Your task to perform on an android device: What is the recent news? Image 0: 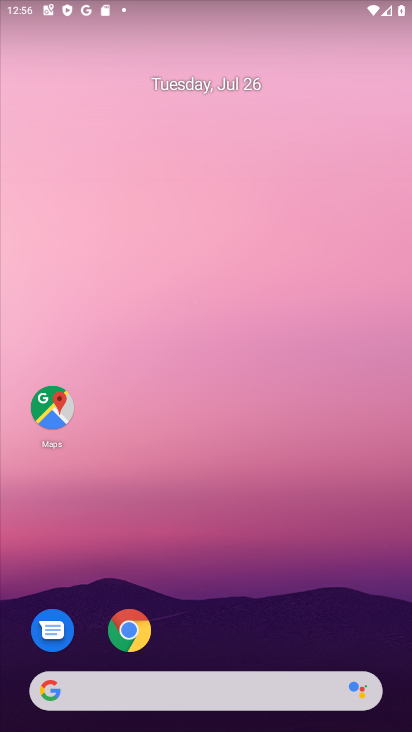
Step 0: click (202, 687)
Your task to perform on an android device: What is the recent news? Image 1: 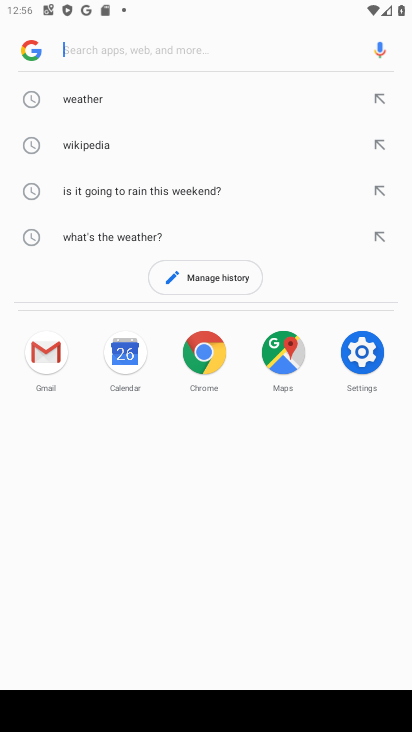
Step 1: type "recent news"
Your task to perform on an android device: What is the recent news? Image 2: 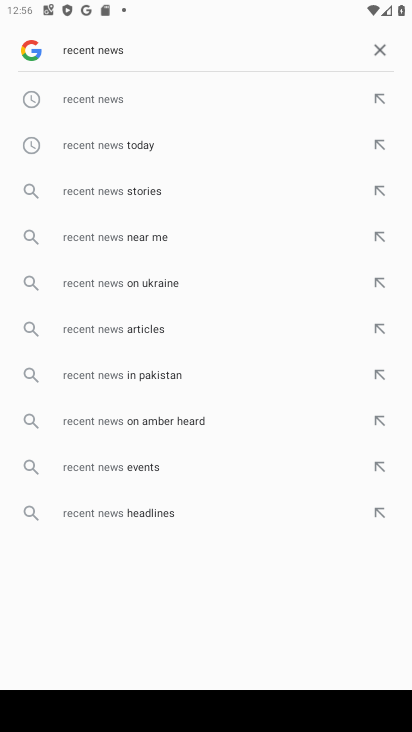
Step 2: click (112, 92)
Your task to perform on an android device: What is the recent news? Image 3: 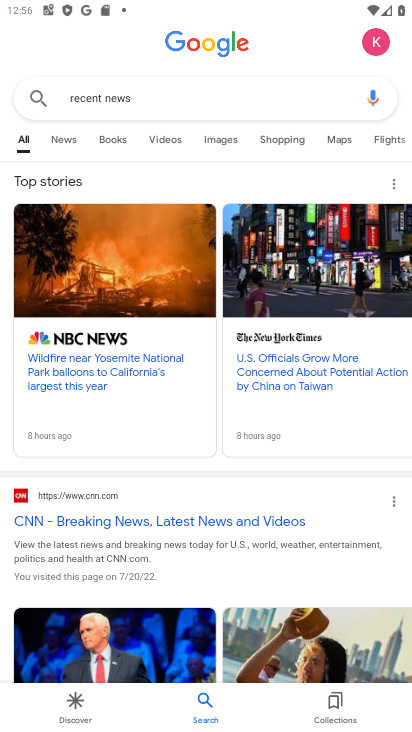
Step 3: task complete